Your task to perform on an android device: Search for "macbook pro" on amazon.com, select the first entry, add it to the cart, then select checkout. Image 0: 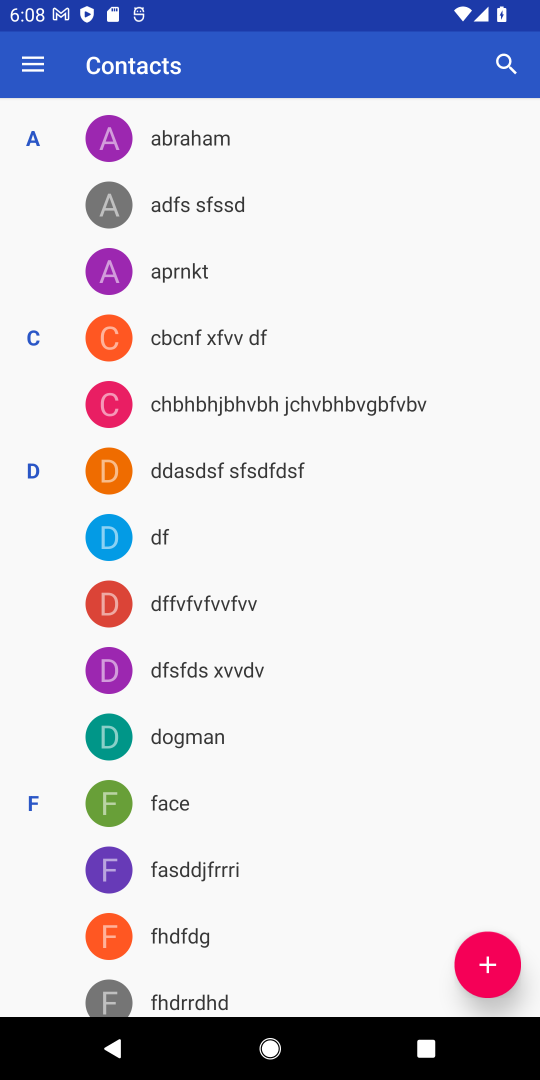
Step 0: press home button
Your task to perform on an android device: Search for "macbook pro" on amazon.com, select the first entry, add it to the cart, then select checkout. Image 1: 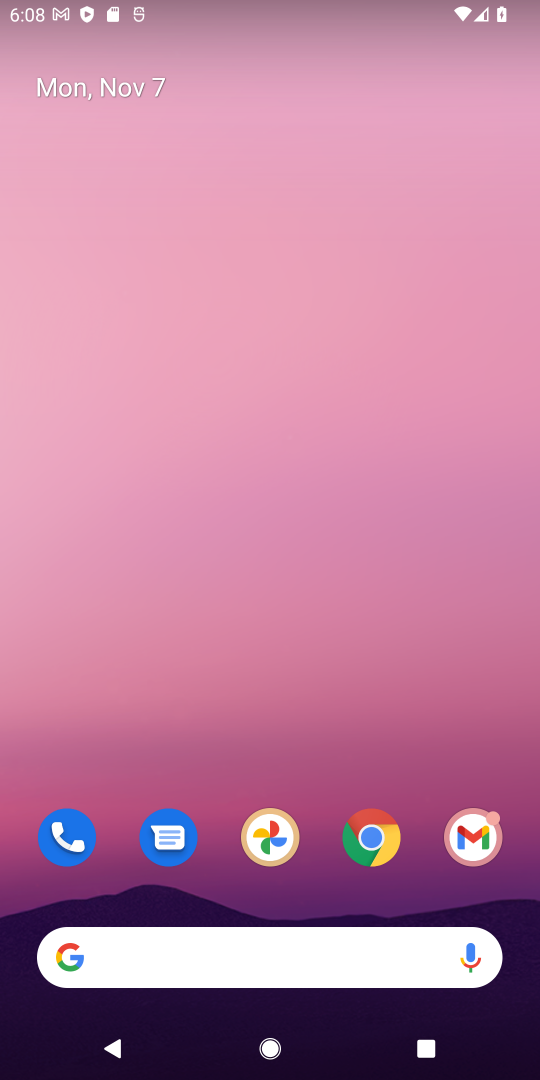
Step 1: click (384, 846)
Your task to perform on an android device: Search for "macbook pro" on amazon.com, select the first entry, add it to the cart, then select checkout. Image 2: 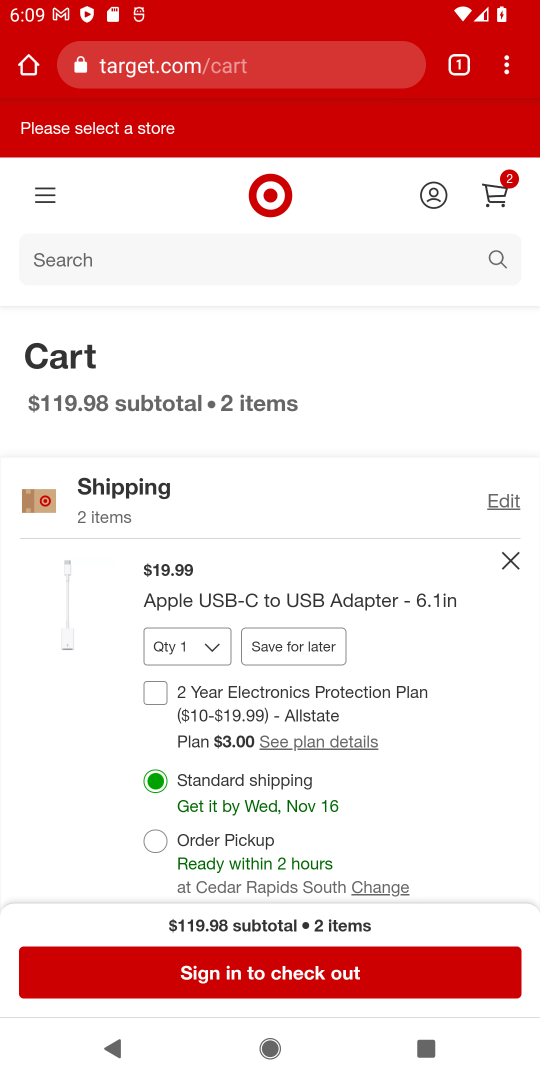
Step 2: click (290, 65)
Your task to perform on an android device: Search for "macbook pro" on amazon.com, select the first entry, add it to the cart, then select checkout. Image 3: 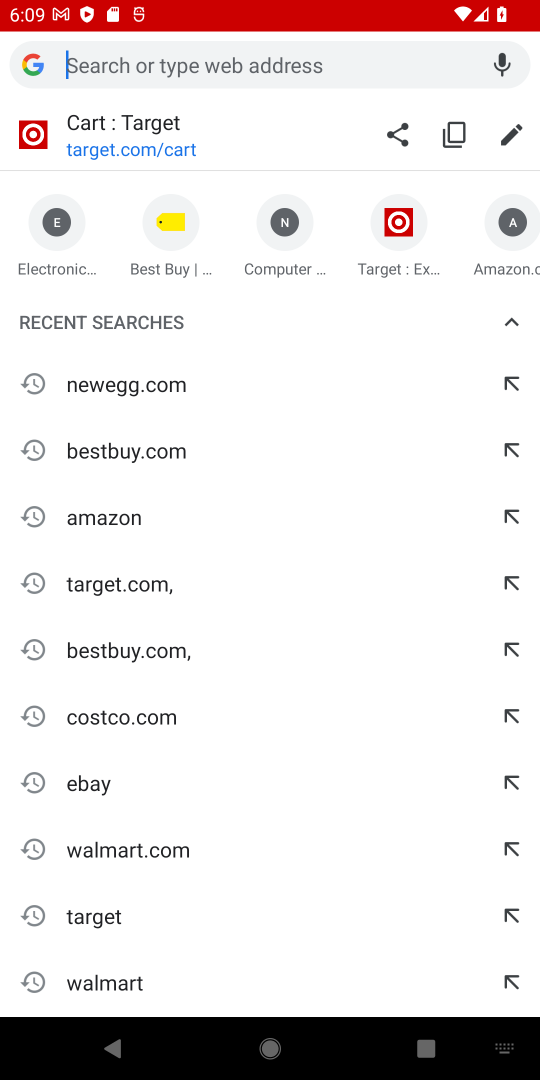
Step 3: type "amazon.com"
Your task to perform on an android device: Search for "macbook pro" on amazon.com, select the first entry, add it to the cart, then select checkout. Image 4: 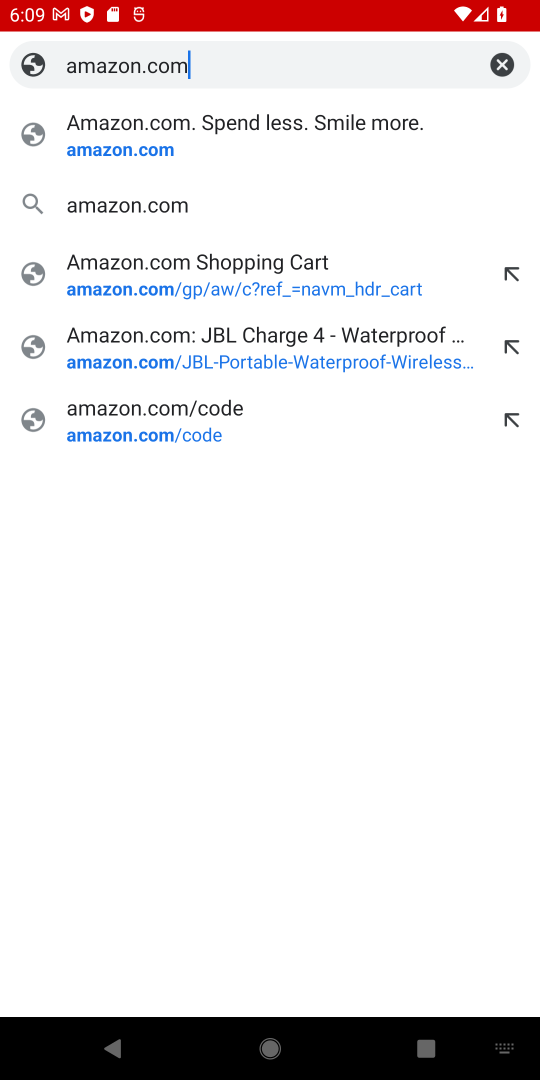
Step 4: click (309, 128)
Your task to perform on an android device: Search for "macbook pro" on amazon.com, select the first entry, add it to the cart, then select checkout. Image 5: 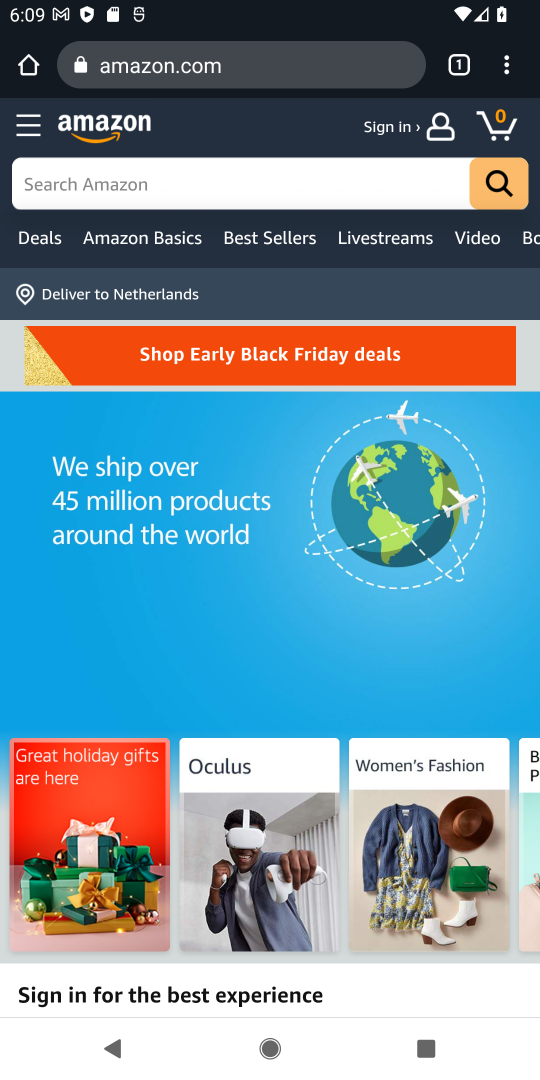
Step 5: click (250, 203)
Your task to perform on an android device: Search for "macbook pro" on amazon.com, select the first entry, add it to the cart, then select checkout. Image 6: 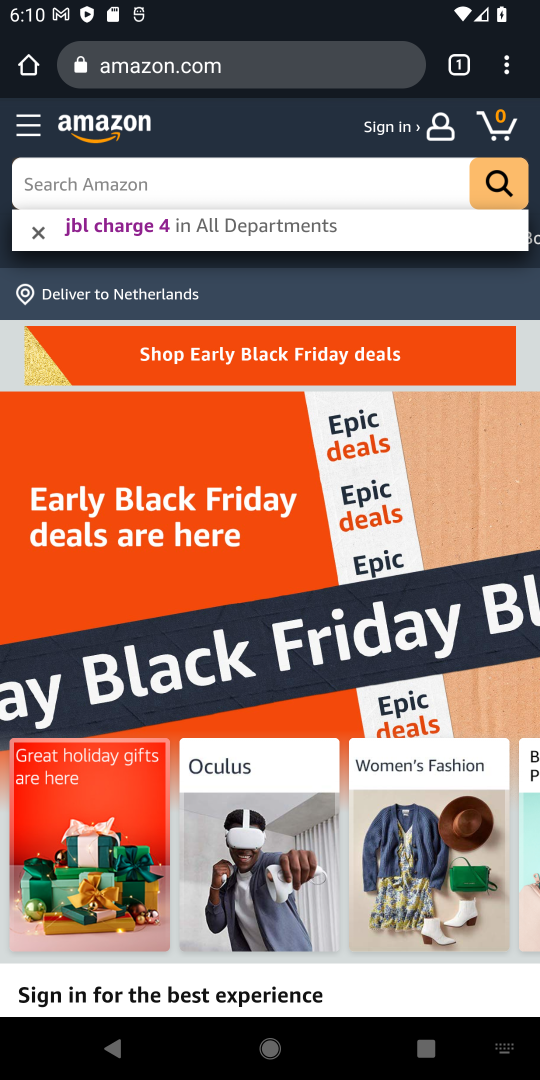
Step 6: type "macbook pro"
Your task to perform on an android device: Search for "macbook pro" on amazon.com, select the first entry, add it to the cart, then select checkout. Image 7: 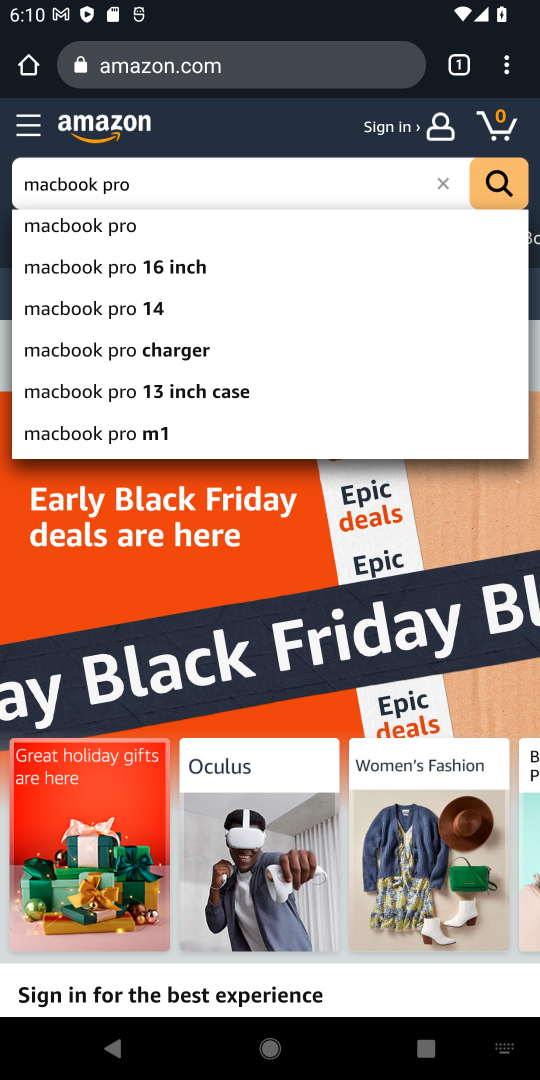
Step 7: press enter
Your task to perform on an android device: Search for "macbook pro" on amazon.com, select the first entry, add it to the cart, then select checkout. Image 8: 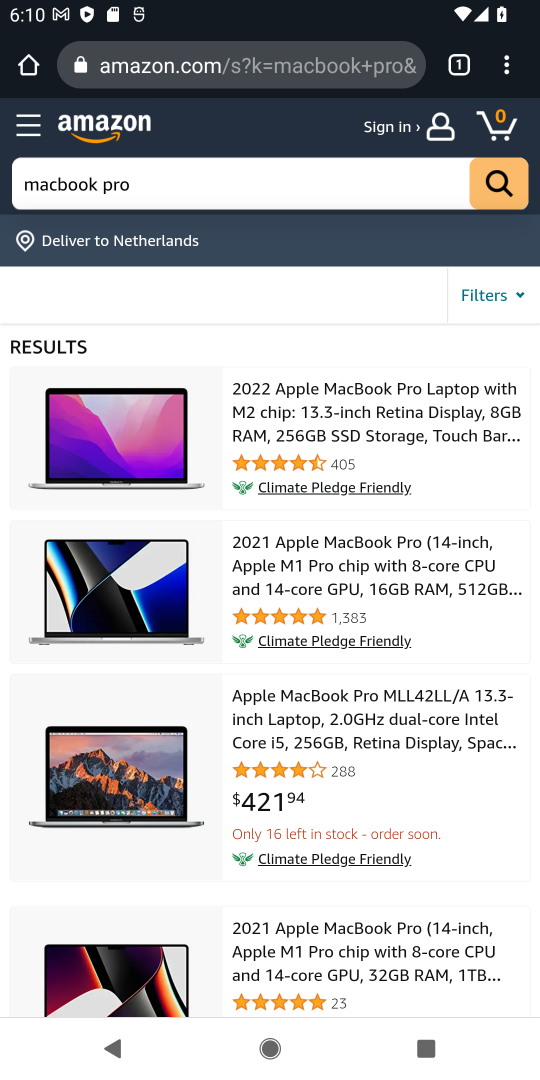
Step 8: click (193, 436)
Your task to perform on an android device: Search for "macbook pro" on amazon.com, select the first entry, add it to the cart, then select checkout. Image 9: 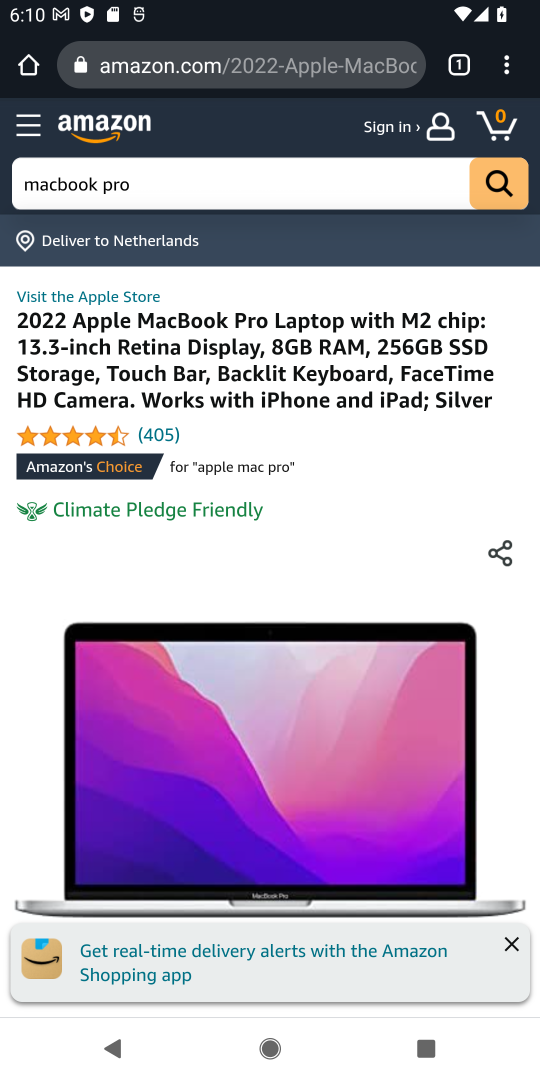
Step 9: task complete